Your task to perform on an android device: Go to Google maps Image 0: 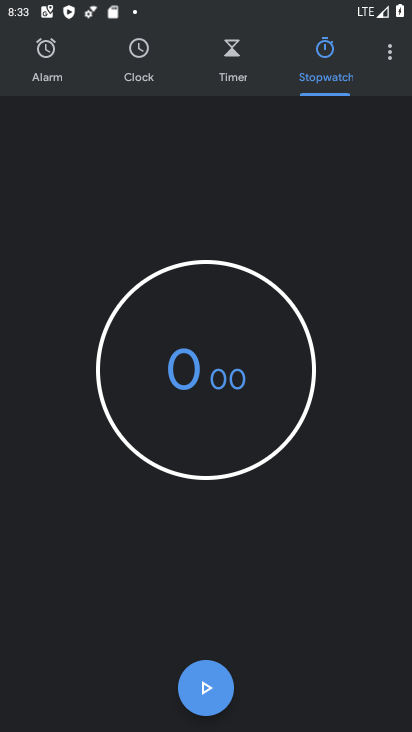
Step 0: press home button
Your task to perform on an android device: Go to Google maps Image 1: 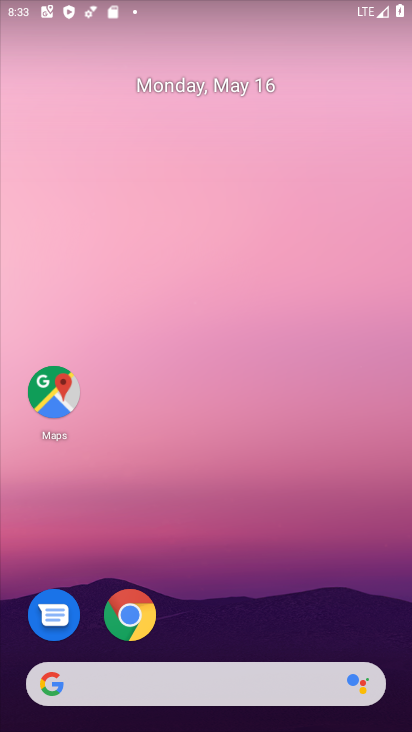
Step 1: drag from (267, 614) to (273, 144)
Your task to perform on an android device: Go to Google maps Image 2: 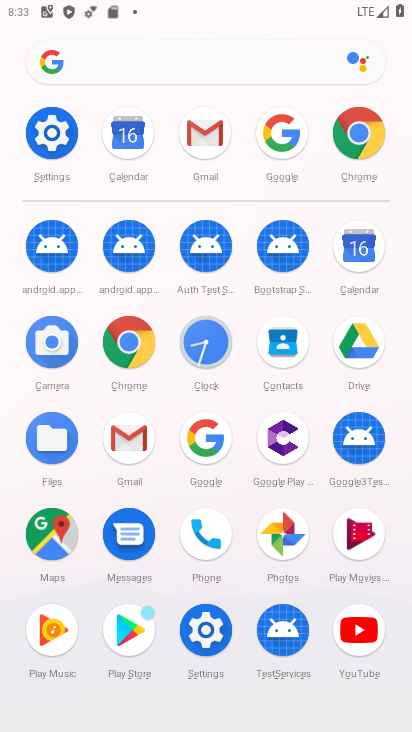
Step 2: click (63, 545)
Your task to perform on an android device: Go to Google maps Image 3: 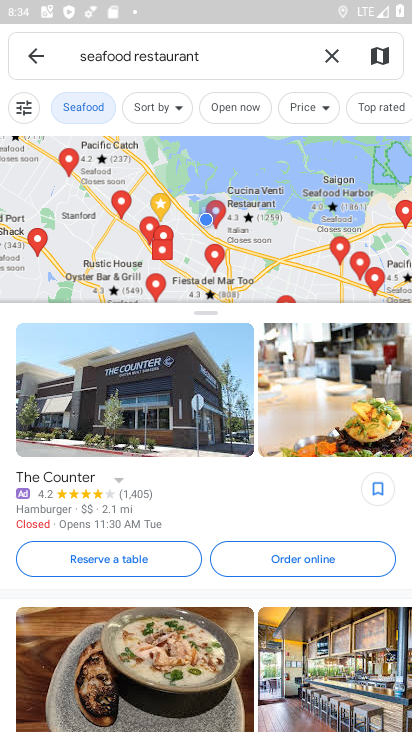
Step 3: task complete